Your task to perform on an android device: Open Yahoo.com Image 0: 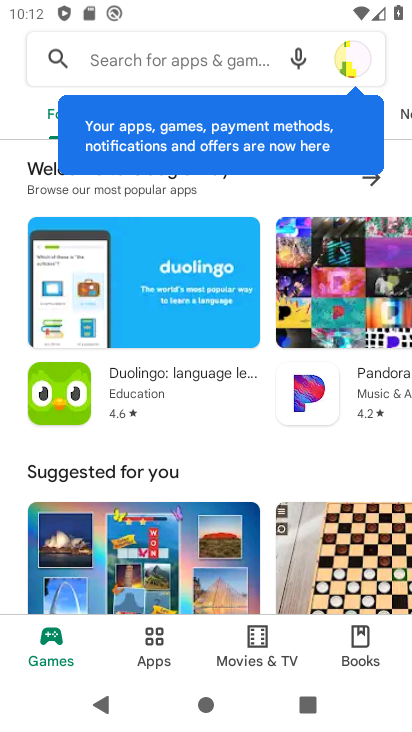
Step 0: press home button
Your task to perform on an android device: Open Yahoo.com Image 1: 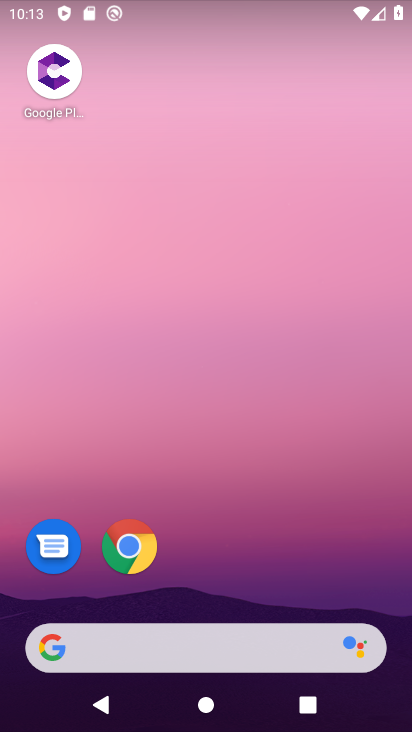
Step 1: click (123, 531)
Your task to perform on an android device: Open Yahoo.com Image 2: 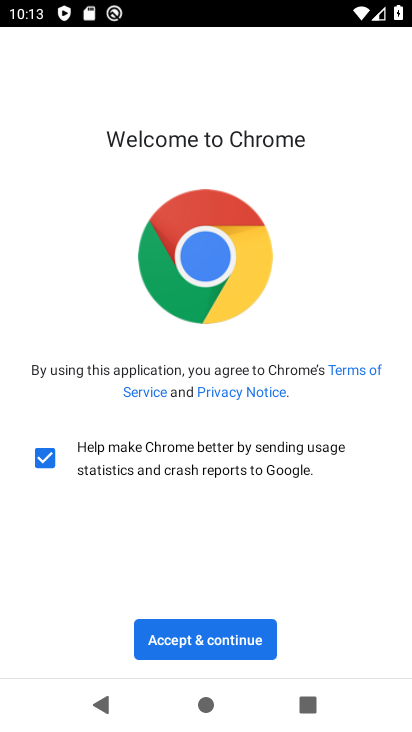
Step 2: click (212, 639)
Your task to perform on an android device: Open Yahoo.com Image 3: 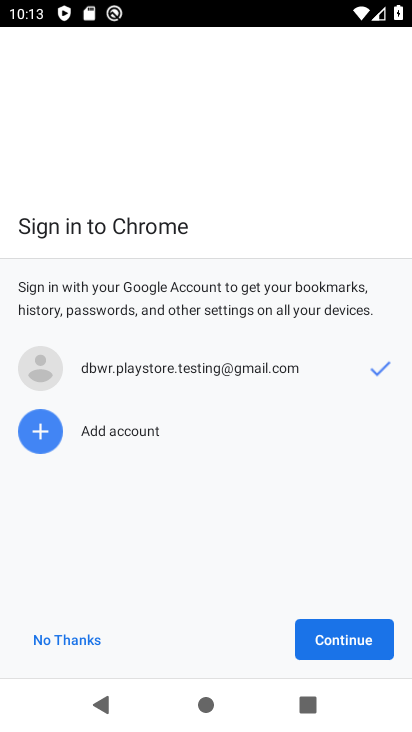
Step 3: click (313, 654)
Your task to perform on an android device: Open Yahoo.com Image 4: 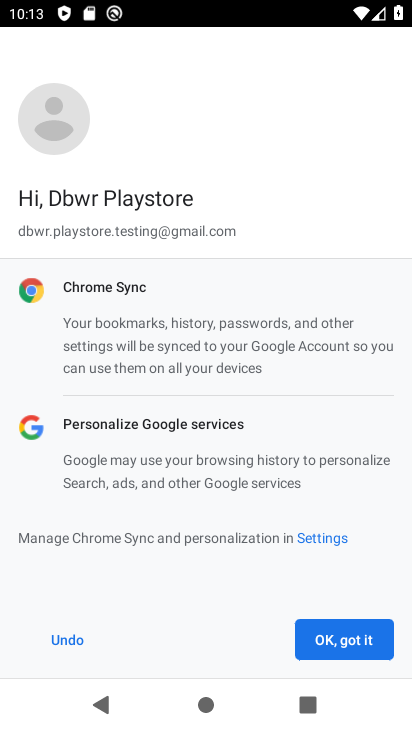
Step 4: click (330, 642)
Your task to perform on an android device: Open Yahoo.com Image 5: 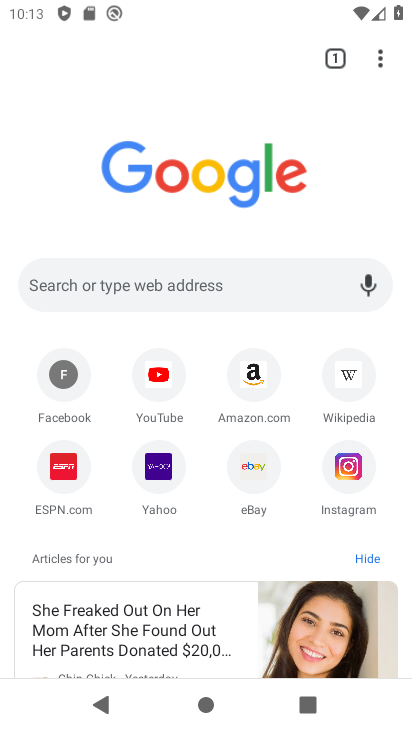
Step 5: click (153, 469)
Your task to perform on an android device: Open Yahoo.com Image 6: 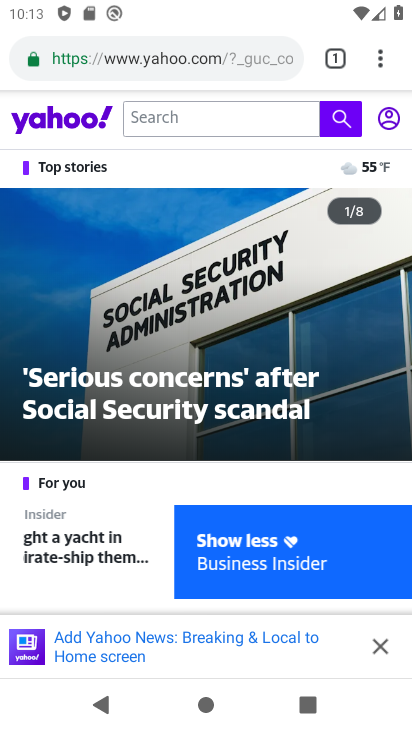
Step 6: task complete